Your task to perform on an android device: Open network settings Image 0: 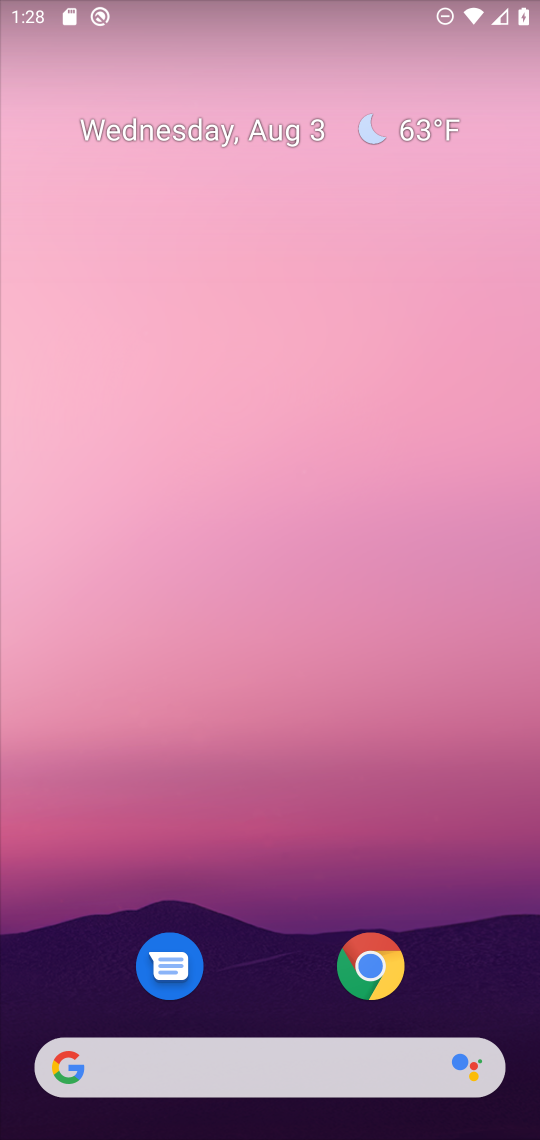
Step 0: drag from (261, 960) to (261, 222)
Your task to perform on an android device: Open network settings Image 1: 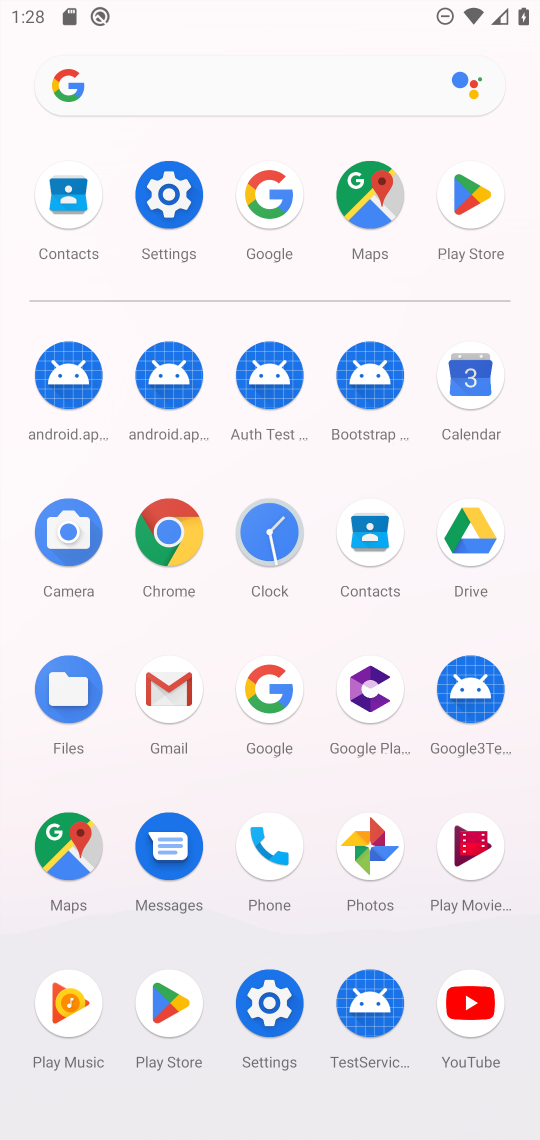
Step 1: click (167, 208)
Your task to perform on an android device: Open network settings Image 2: 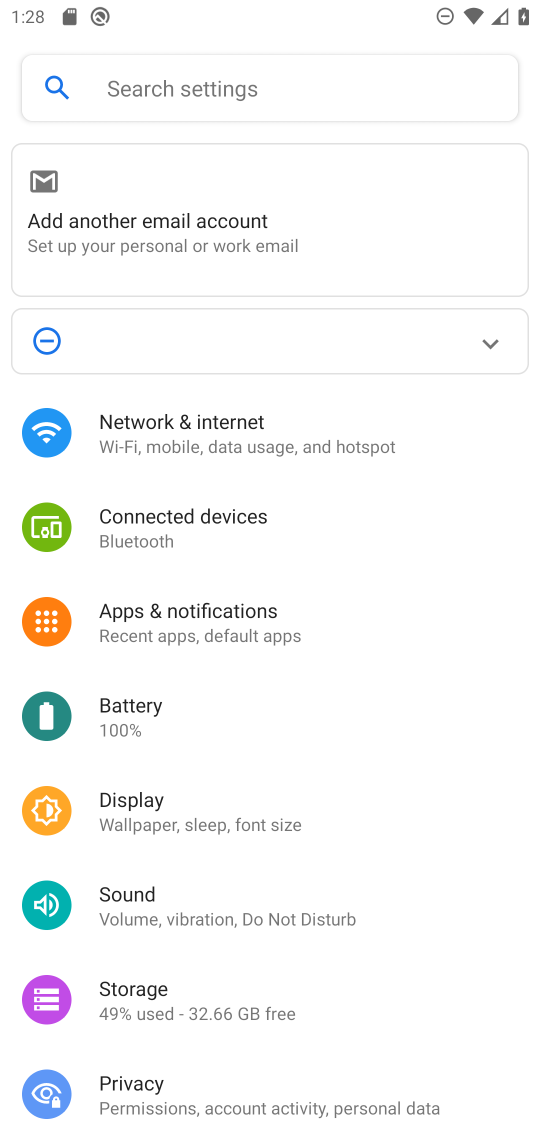
Step 2: click (262, 431)
Your task to perform on an android device: Open network settings Image 3: 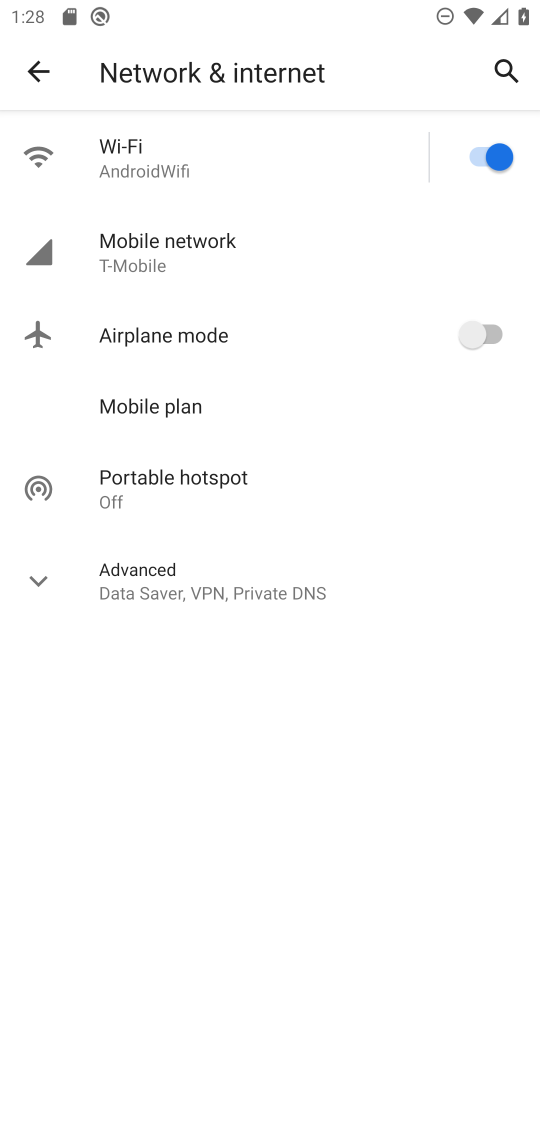
Step 3: task complete